Your task to perform on an android device: Open Chrome and go to the settings page Image 0: 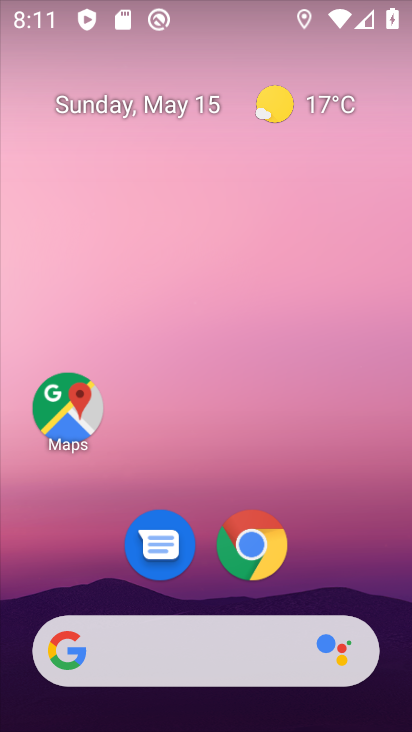
Step 0: click (246, 544)
Your task to perform on an android device: Open Chrome and go to the settings page Image 1: 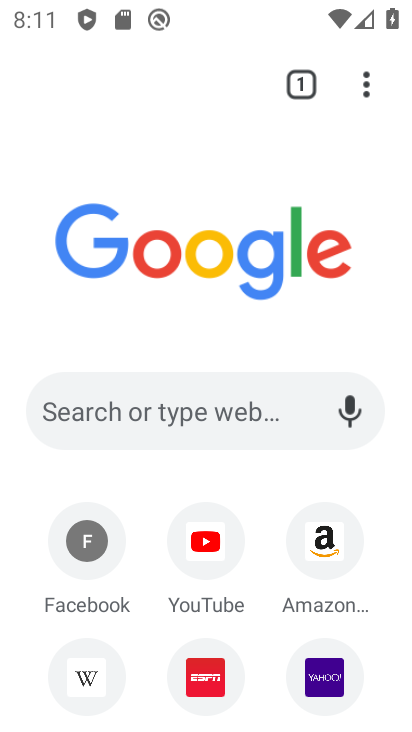
Step 1: click (364, 89)
Your task to perform on an android device: Open Chrome and go to the settings page Image 2: 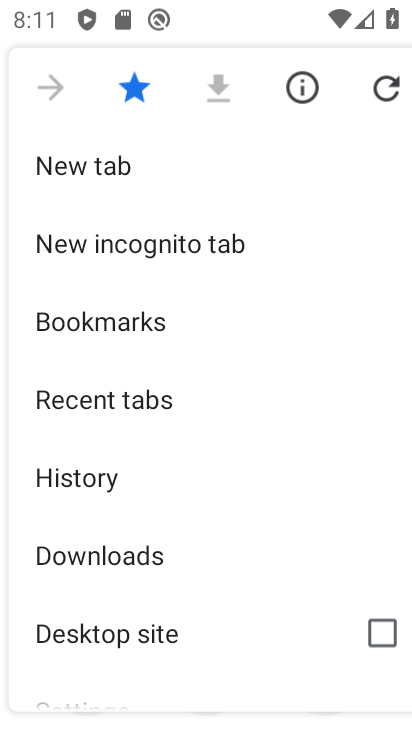
Step 2: drag from (143, 622) to (140, 233)
Your task to perform on an android device: Open Chrome and go to the settings page Image 3: 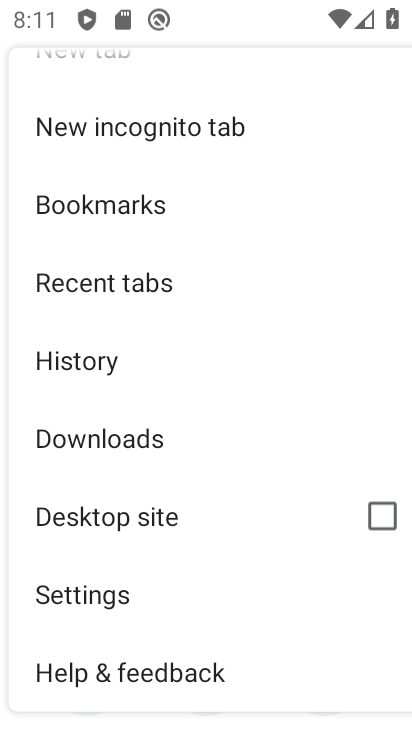
Step 3: click (114, 596)
Your task to perform on an android device: Open Chrome and go to the settings page Image 4: 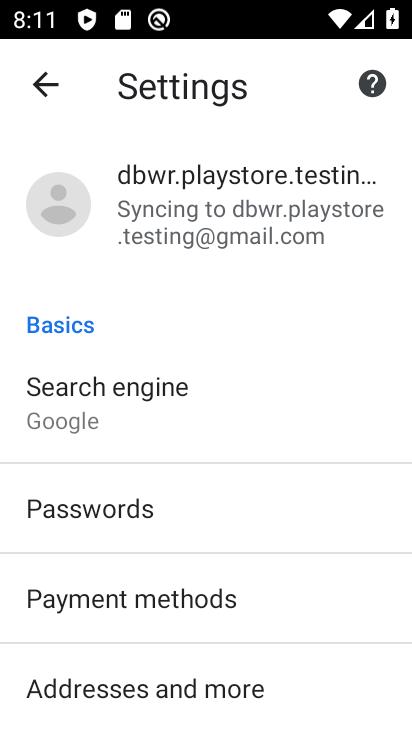
Step 4: task complete